Your task to perform on an android device: toggle improve location accuracy Image 0: 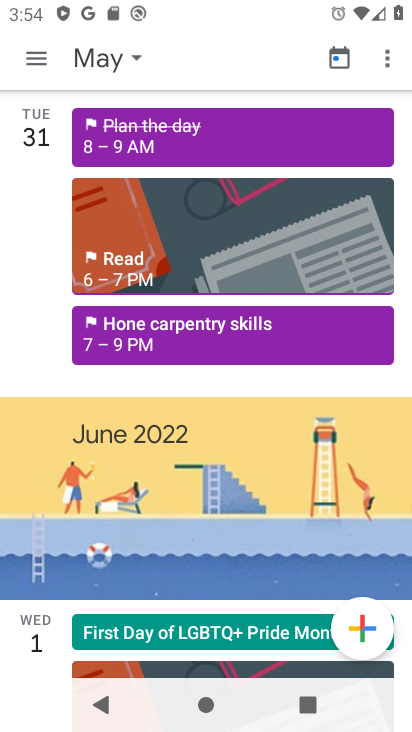
Step 0: press home button
Your task to perform on an android device: toggle improve location accuracy Image 1: 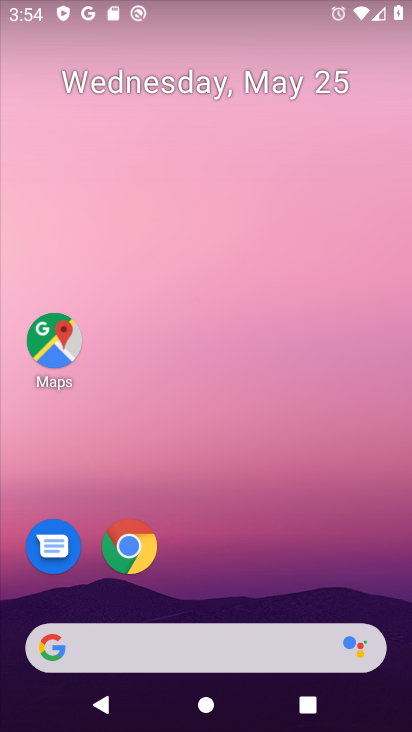
Step 1: drag from (248, 600) to (297, 27)
Your task to perform on an android device: toggle improve location accuracy Image 2: 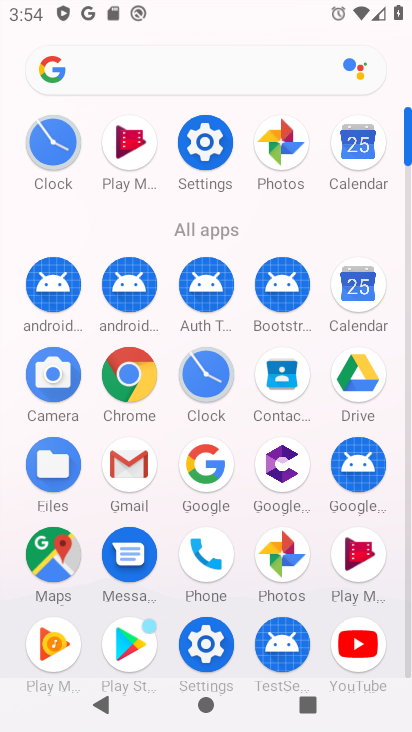
Step 2: click (206, 136)
Your task to perform on an android device: toggle improve location accuracy Image 3: 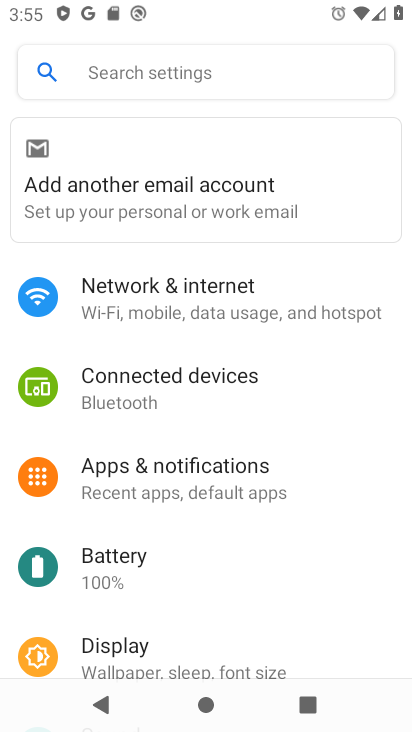
Step 3: drag from (178, 630) to (170, 273)
Your task to perform on an android device: toggle improve location accuracy Image 4: 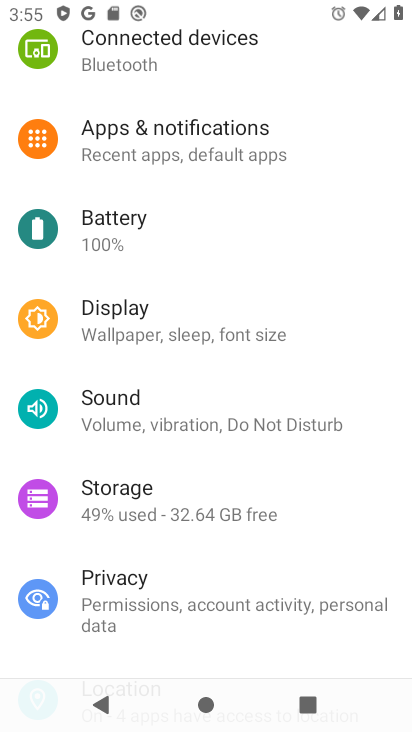
Step 4: drag from (179, 624) to (257, 263)
Your task to perform on an android device: toggle improve location accuracy Image 5: 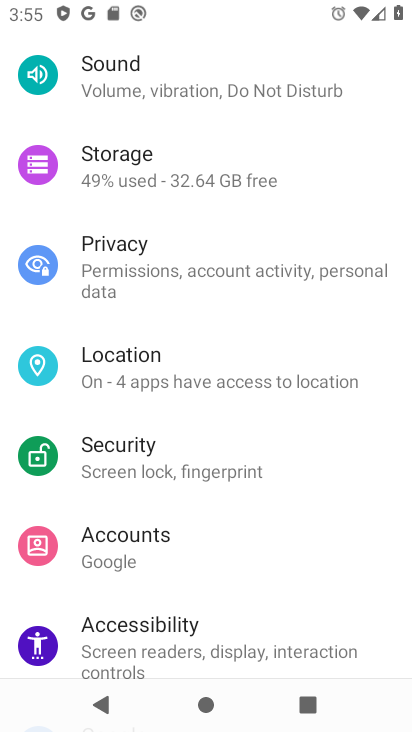
Step 5: click (148, 364)
Your task to perform on an android device: toggle improve location accuracy Image 6: 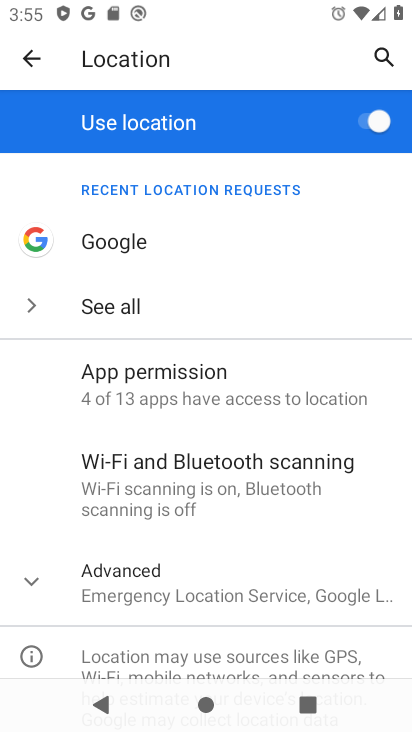
Step 6: click (151, 590)
Your task to perform on an android device: toggle improve location accuracy Image 7: 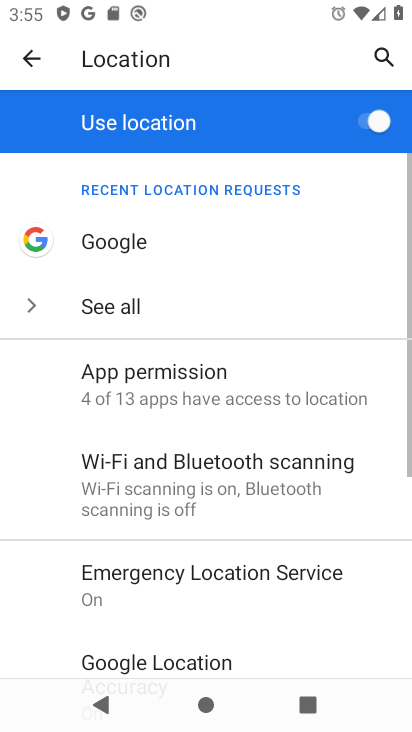
Step 7: drag from (216, 602) to (248, 319)
Your task to perform on an android device: toggle improve location accuracy Image 8: 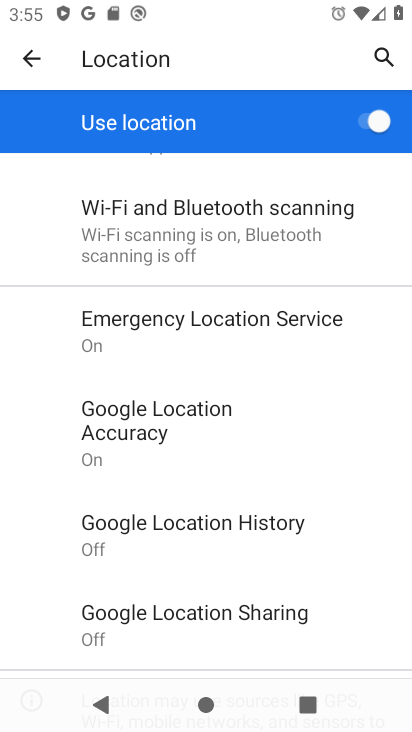
Step 8: click (193, 432)
Your task to perform on an android device: toggle improve location accuracy Image 9: 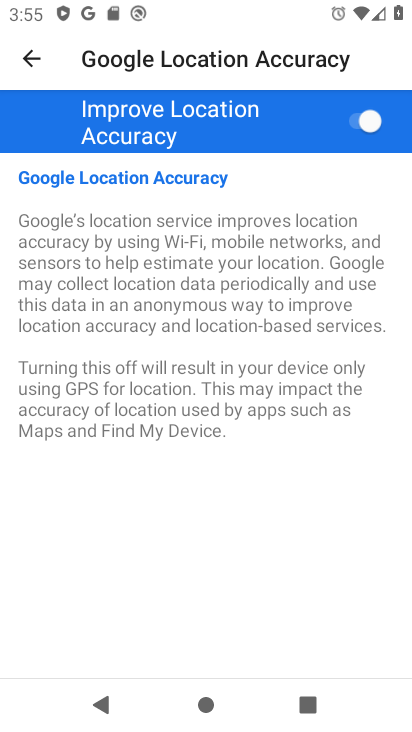
Step 9: click (359, 120)
Your task to perform on an android device: toggle improve location accuracy Image 10: 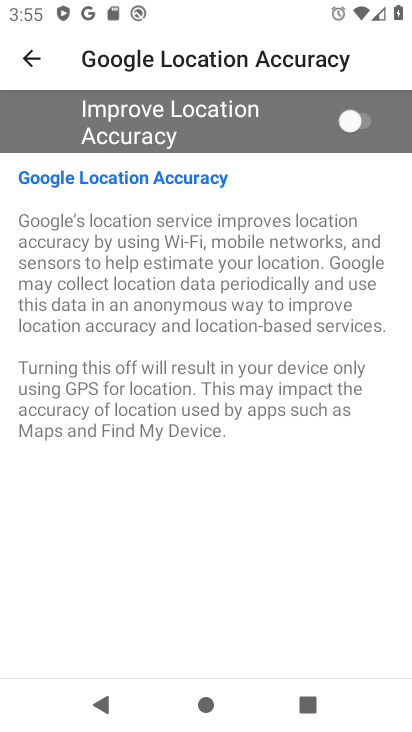
Step 10: task complete